Your task to perform on an android device: Go to Google Image 0: 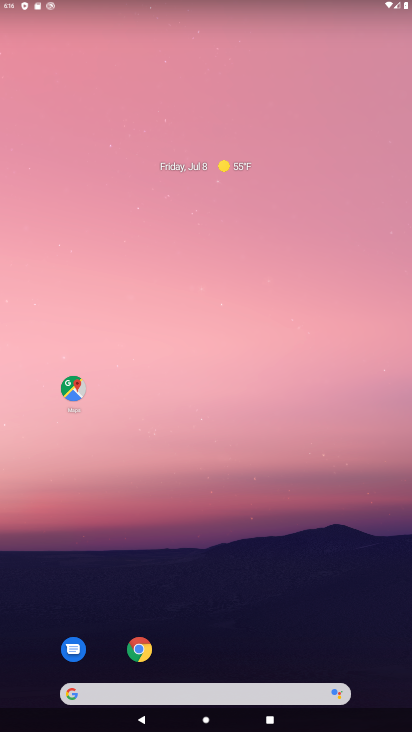
Step 0: drag from (219, 473) to (226, 6)
Your task to perform on an android device: Go to Google Image 1: 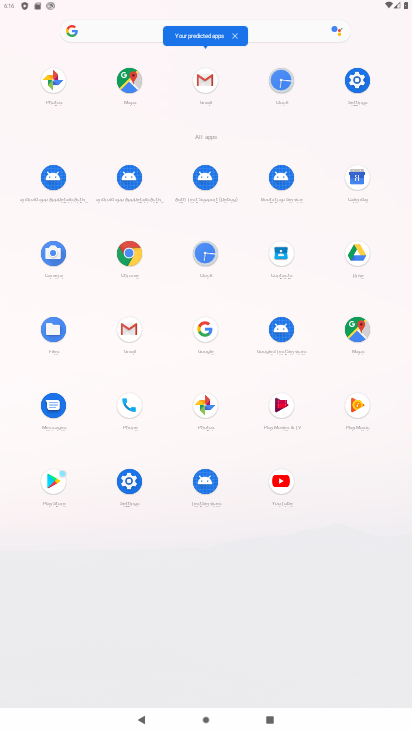
Step 1: click (209, 330)
Your task to perform on an android device: Go to Google Image 2: 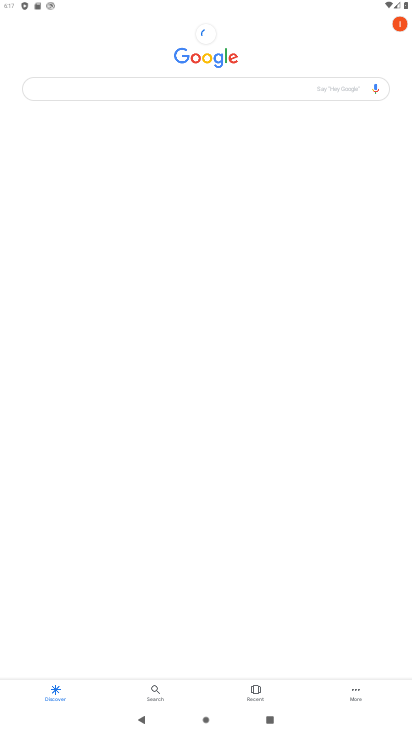
Step 2: task complete